Your task to perform on an android device: open app "NewsBreak: Local News & Alerts" (install if not already installed) and enter user name: "switch@outlook.com" and password: "fabrics" Image 0: 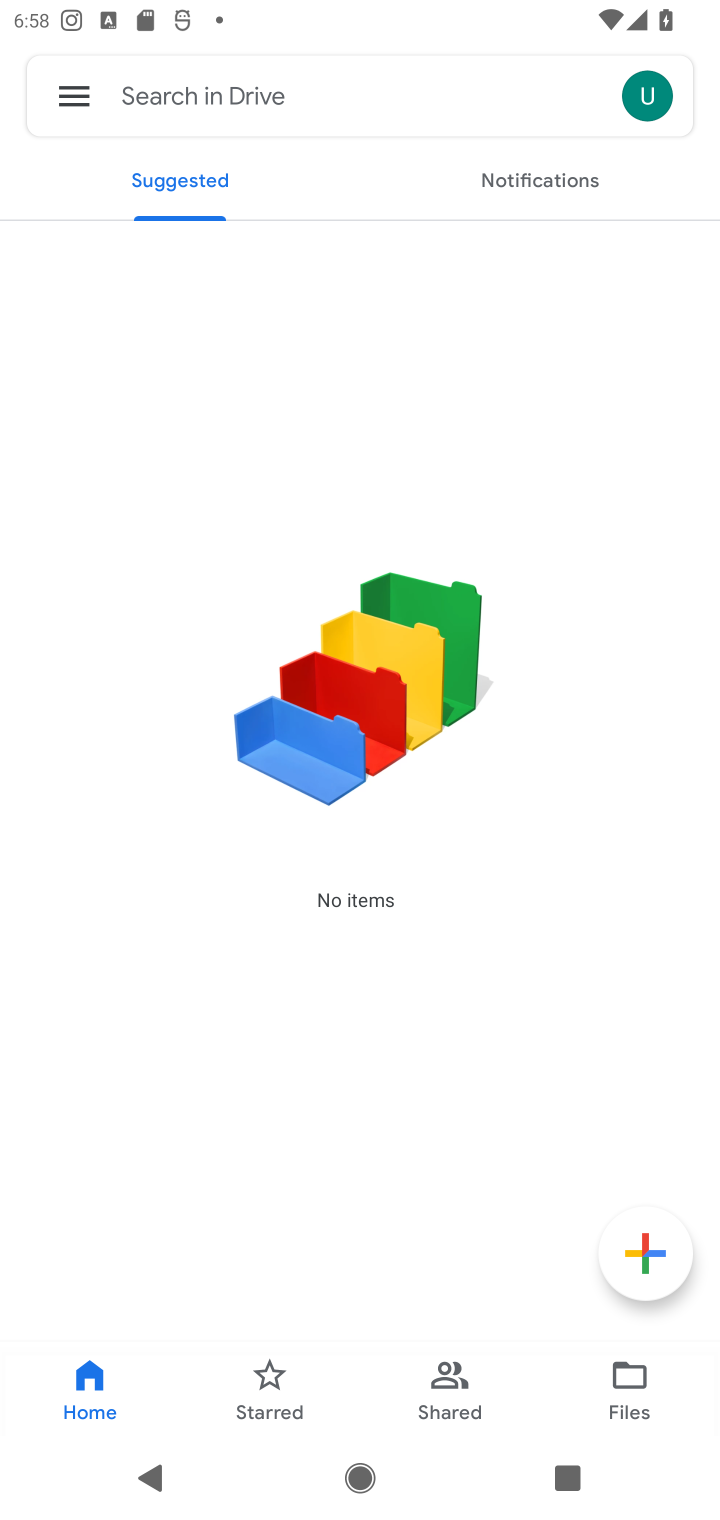
Step 0: press home button
Your task to perform on an android device: open app "NewsBreak: Local News & Alerts" (install if not already installed) and enter user name: "switch@outlook.com" and password: "fabrics" Image 1: 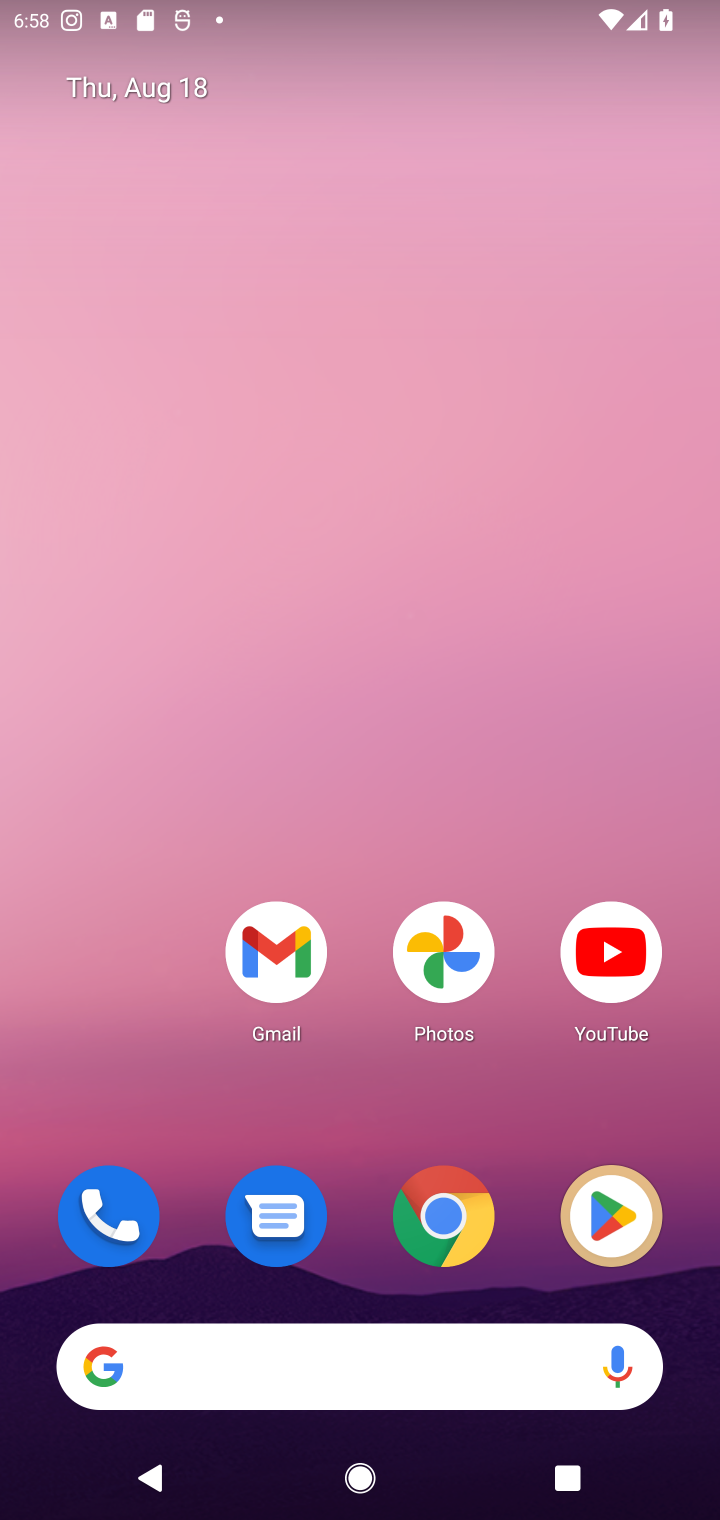
Step 1: click (588, 1203)
Your task to perform on an android device: open app "NewsBreak: Local News & Alerts" (install if not already installed) and enter user name: "switch@outlook.com" and password: "fabrics" Image 2: 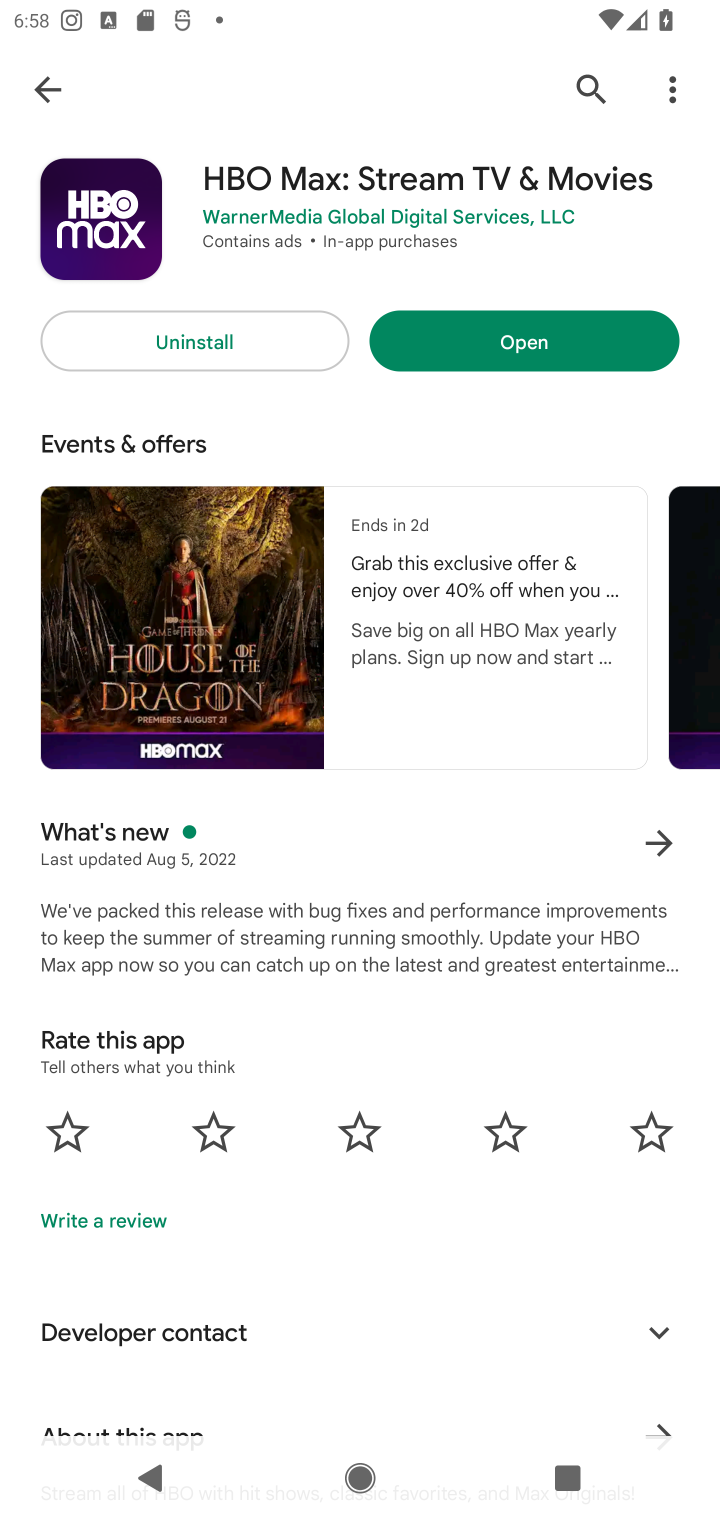
Step 2: click (612, 82)
Your task to perform on an android device: open app "NewsBreak: Local News & Alerts" (install if not already installed) and enter user name: "switch@outlook.com" and password: "fabrics" Image 3: 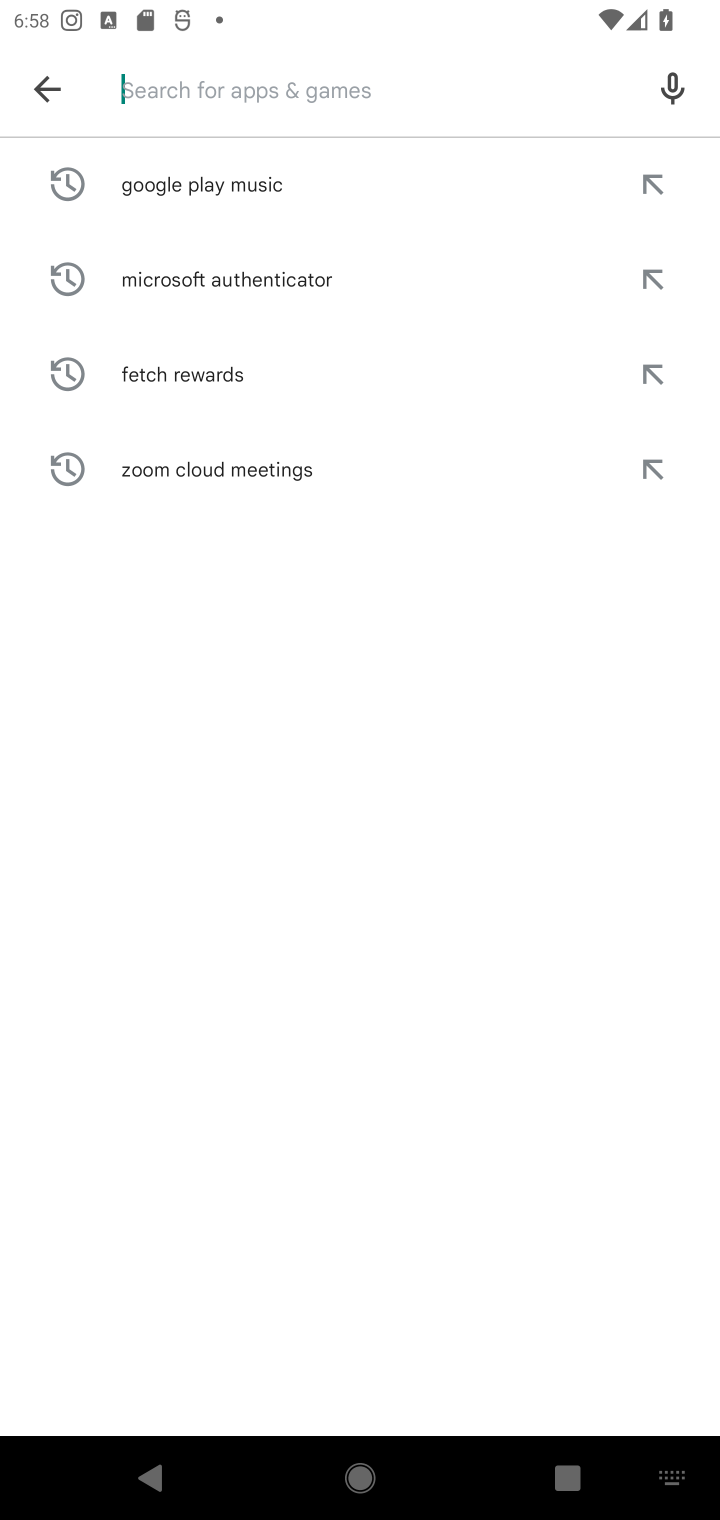
Step 3: type "NewsBreak: Local News & Alerts"
Your task to perform on an android device: open app "NewsBreak: Local News & Alerts" (install if not already installed) and enter user name: "switch@outlook.com" and password: "fabrics" Image 4: 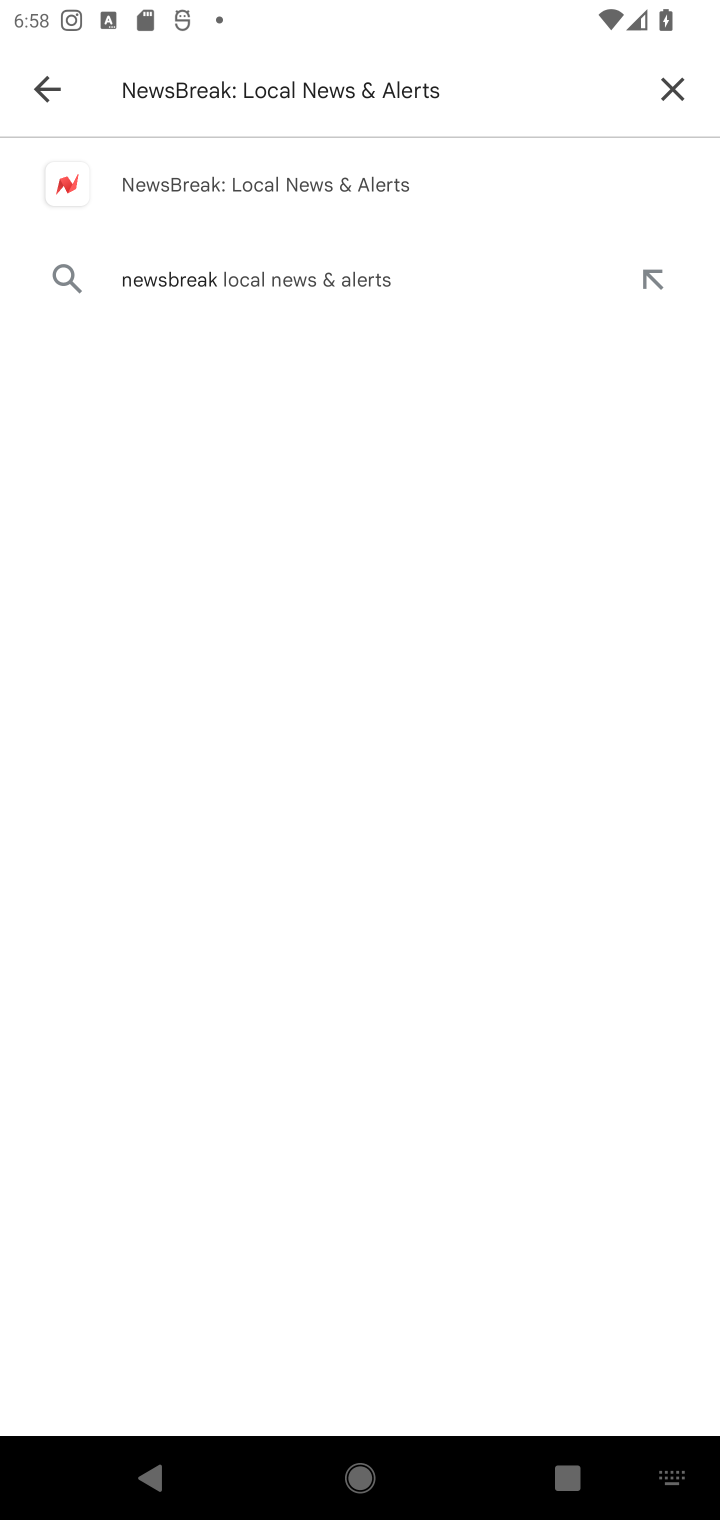
Step 4: click (331, 186)
Your task to perform on an android device: open app "NewsBreak: Local News & Alerts" (install if not already installed) and enter user name: "switch@outlook.com" and password: "fabrics" Image 5: 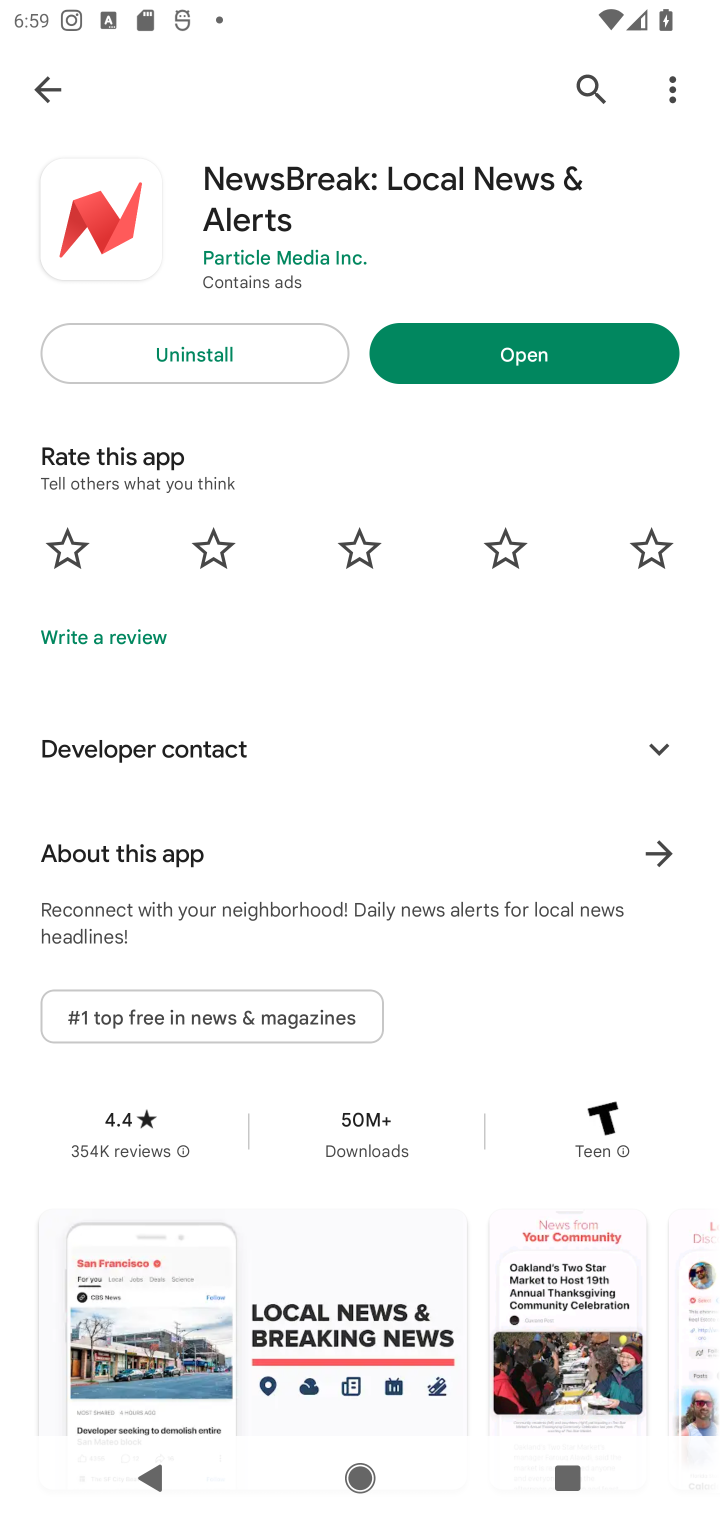
Step 5: click (511, 346)
Your task to perform on an android device: open app "NewsBreak: Local News & Alerts" (install if not already installed) and enter user name: "switch@outlook.com" and password: "fabrics" Image 6: 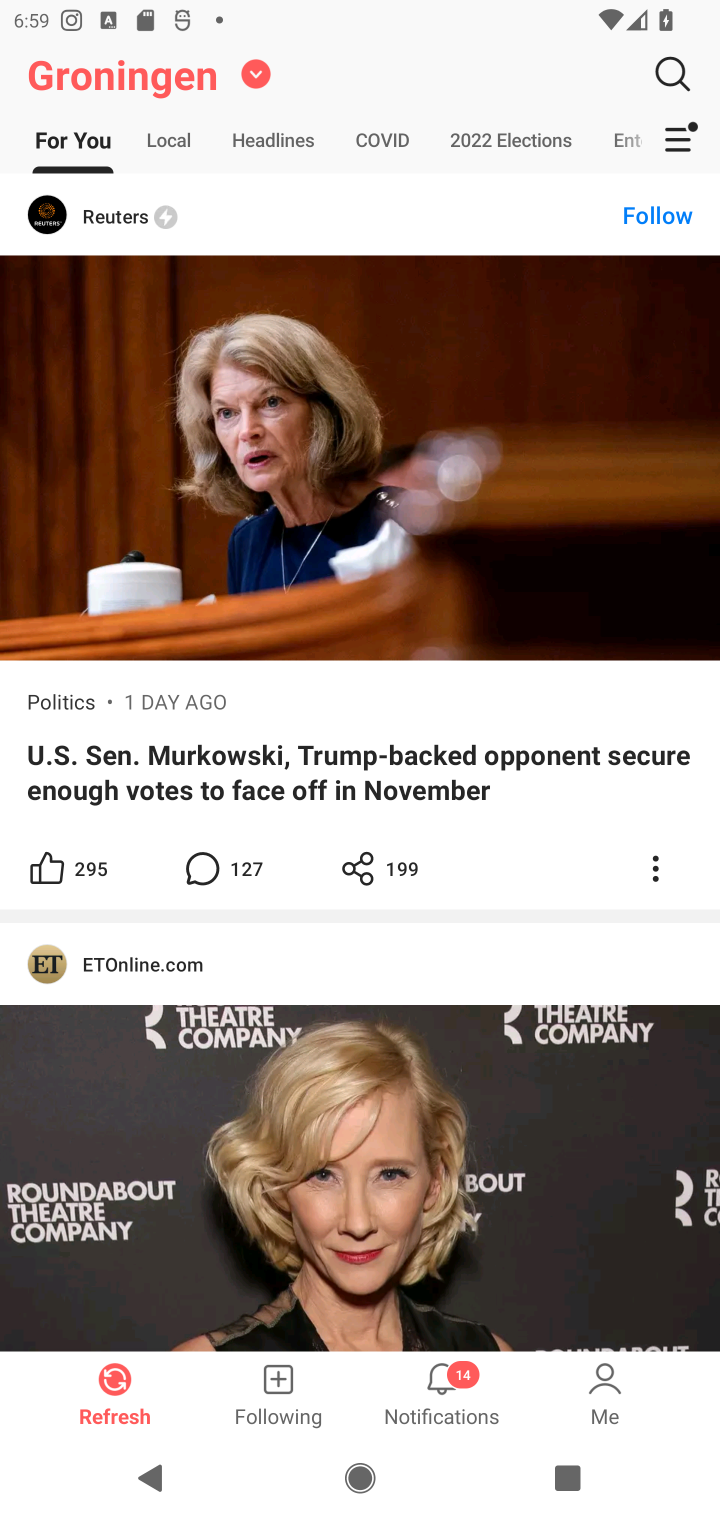
Step 6: task complete